Your task to perform on an android device: Go to internet settings Image 0: 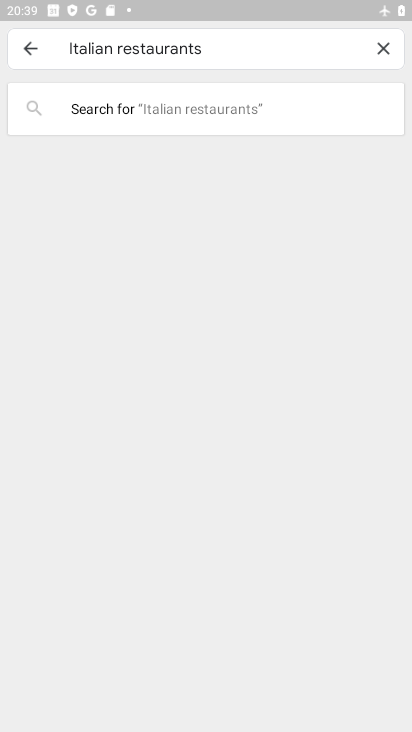
Step 0: press home button
Your task to perform on an android device: Go to internet settings Image 1: 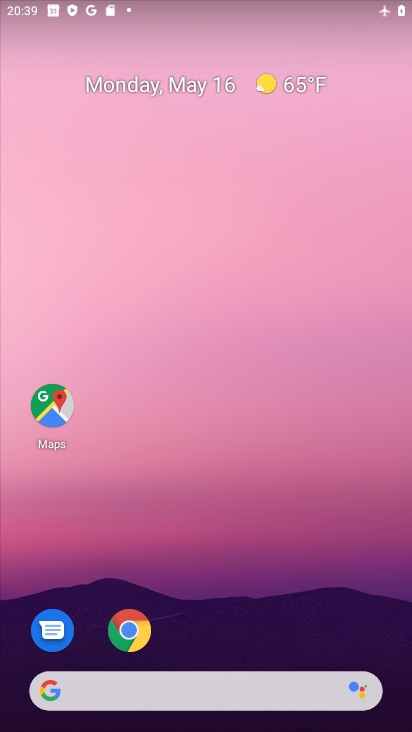
Step 1: drag from (234, 640) to (239, 303)
Your task to perform on an android device: Go to internet settings Image 2: 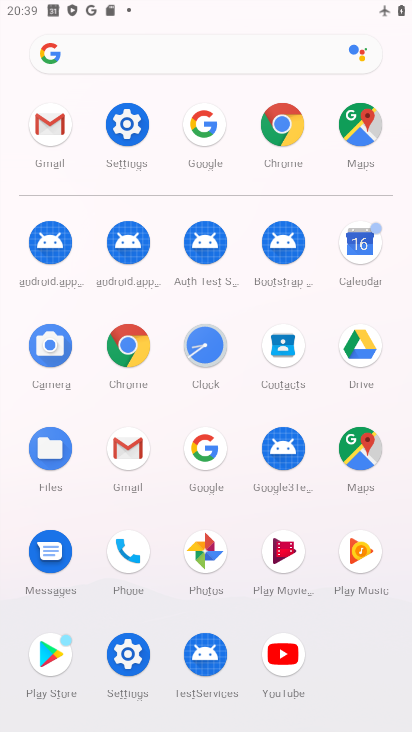
Step 2: click (136, 117)
Your task to perform on an android device: Go to internet settings Image 3: 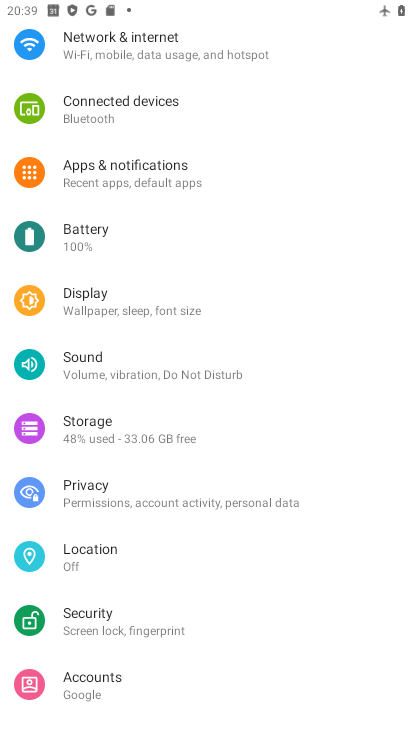
Step 3: click (177, 36)
Your task to perform on an android device: Go to internet settings Image 4: 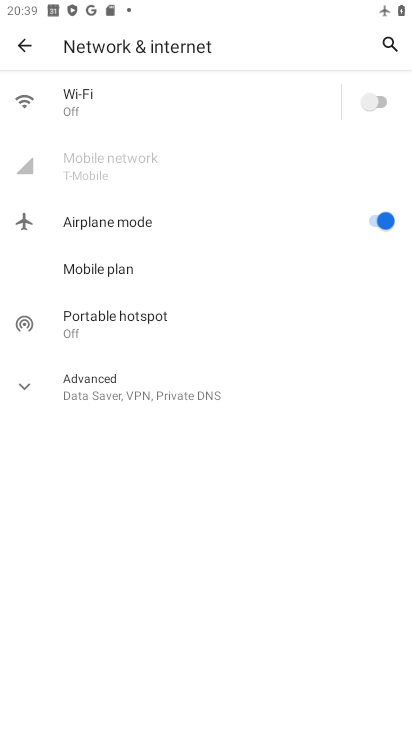
Step 4: click (122, 142)
Your task to perform on an android device: Go to internet settings Image 5: 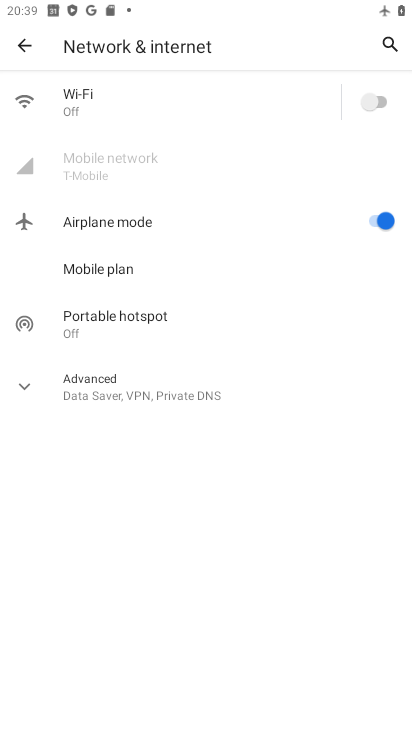
Step 5: task complete